Your task to perform on an android device: all mails in gmail Image 0: 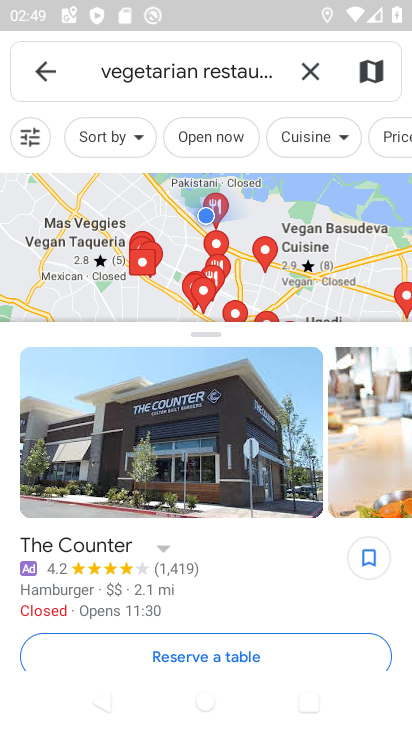
Step 0: press home button
Your task to perform on an android device: all mails in gmail Image 1: 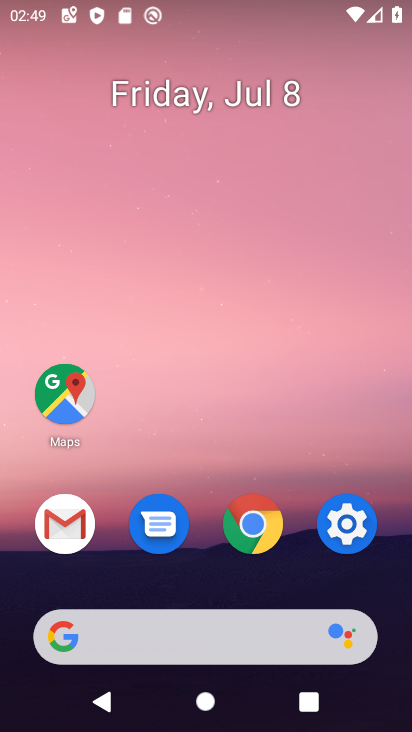
Step 1: click (71, 524)
Your task to perform on an android device: all mails in gmail Image 2: 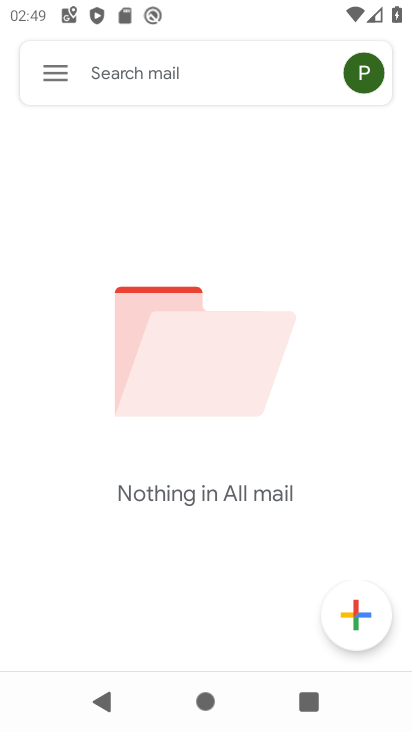
Step 2: click (43, 70)
Your task to perform on an android device: all mails in gmail Image 3: 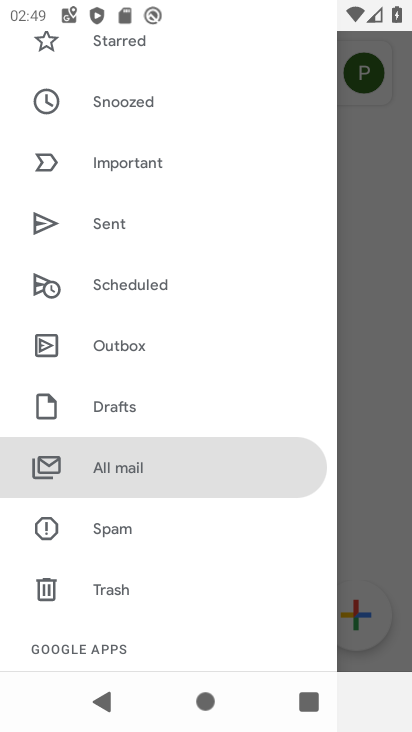
Step 3: click (133, 463)
Your task to perform on an android device: all mails in gmail Image 4: 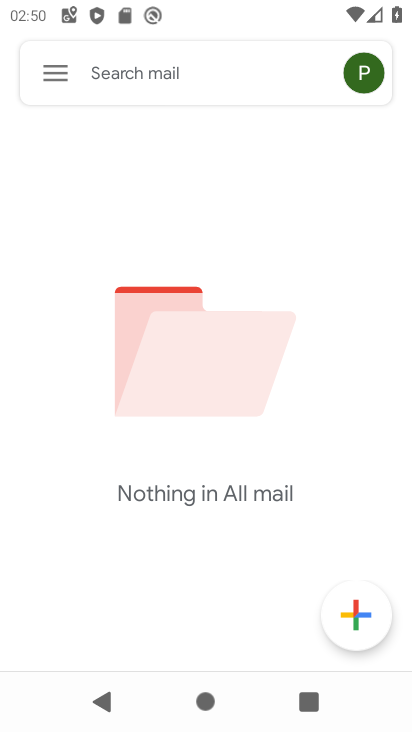
Step 4: task complete